Your task to perform on an android device: Go to privacy settings Image 0: 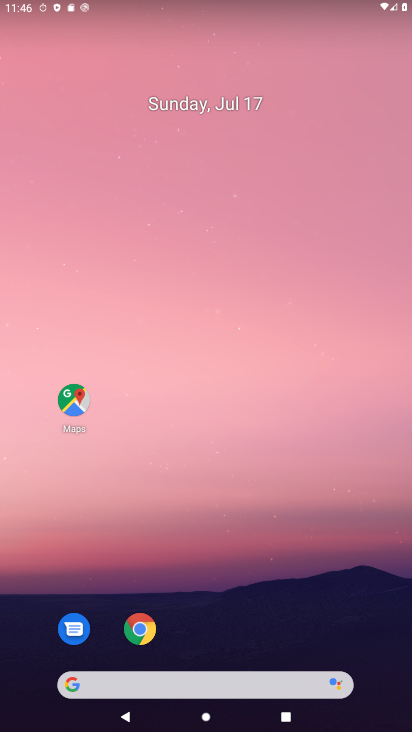
Step 0: drag from (213, 643) to (256, 41)
Your task to perform on an android device: Go to privacy settings Image 1: 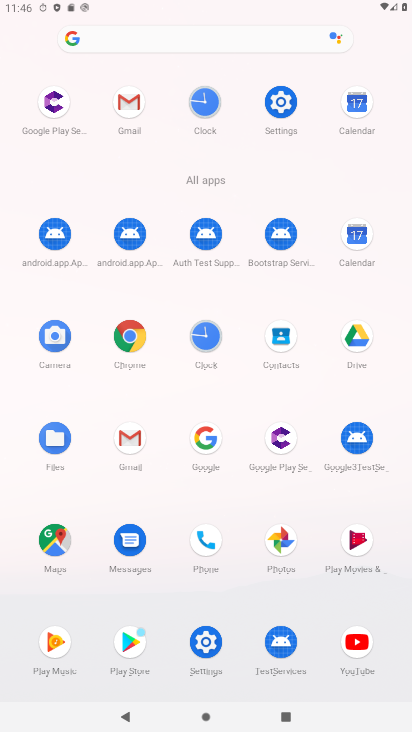
Step 1: click (280, 97)
Your task to perform on an android device: Go to privacy settings Image 2: 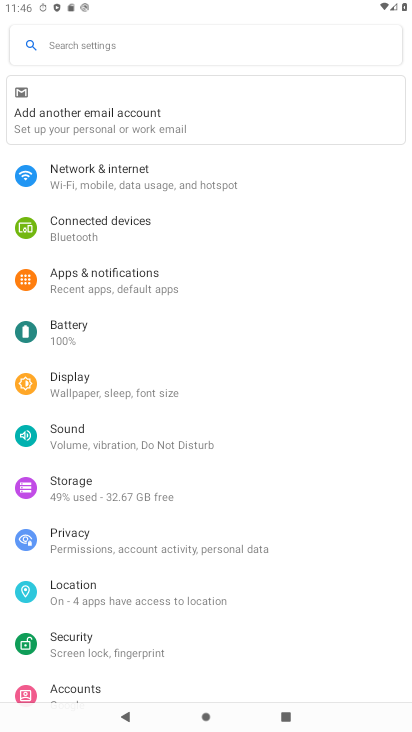
Step 2: click (106, 531)
Your task to perform on an android device: Go to privacy settings Image 3: 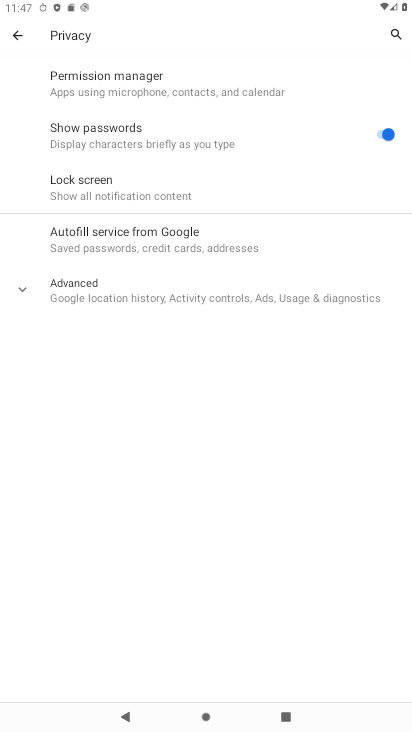
Step 3: click (23, 284)
Your task to perform on an android device: Go to privacy settings Image 4: 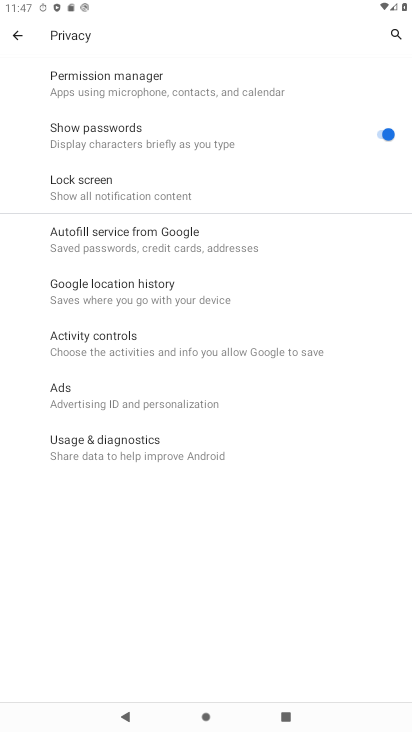
Step 4: task complete